Your task to perform on an android device: turn on bluetooth scan Image 0: 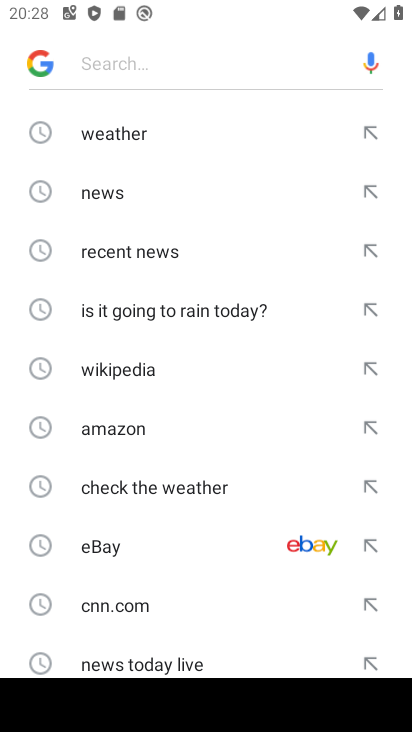
Step 0: press home button
Your task to perform on an android device: turn on bluetooth scan Image 1: 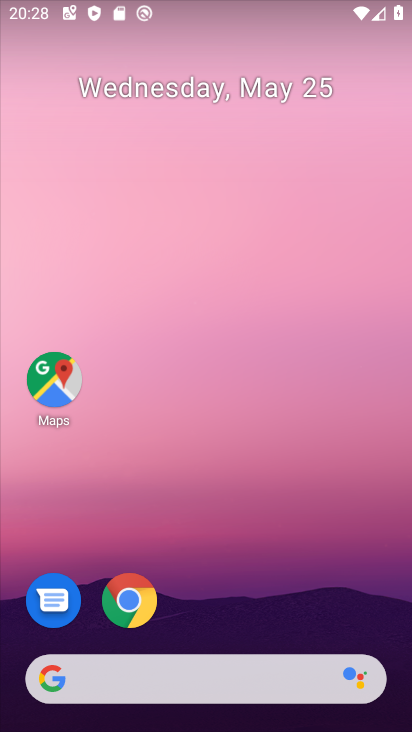
Step 1: drag from (379, 621) to (327, 163)
Your task to perform on an android device: turn on bluetooth scan Image 2: 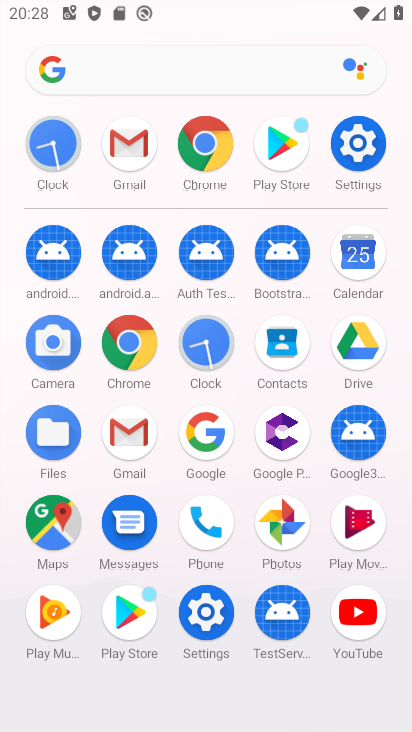
Step 2: click (373, 163)
Your task to perform on an android device: turn on bluetooth scan Image 3: 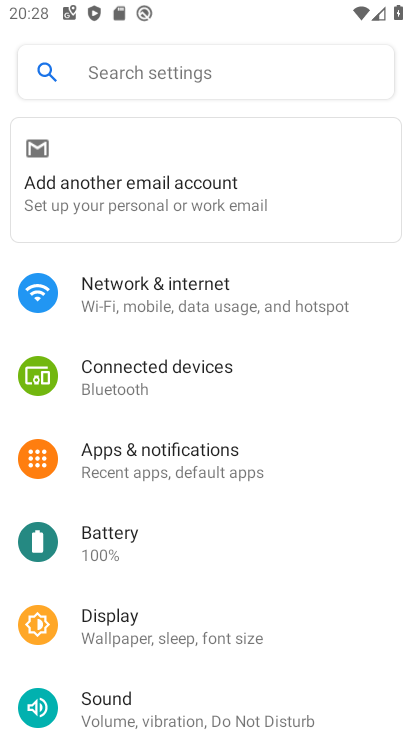
Step 3: drag from (267, 657) to (249, 210)
Your task to perform on an android device: turn on bluetooth scan Image 4: 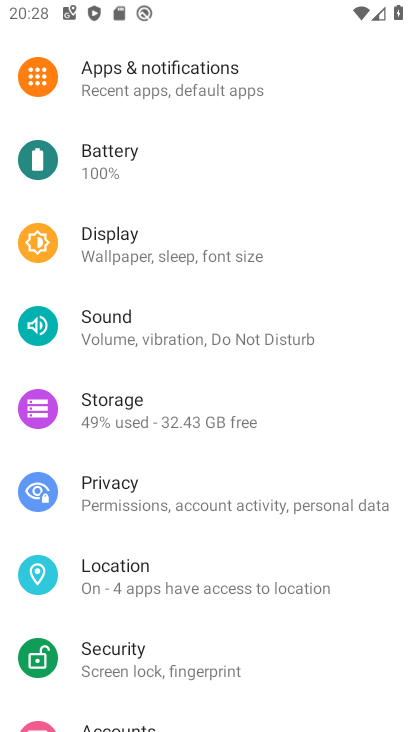
Step 4: click (227, 581)
Your task to perform on an android device: turn on bluetooth scan Image 5: 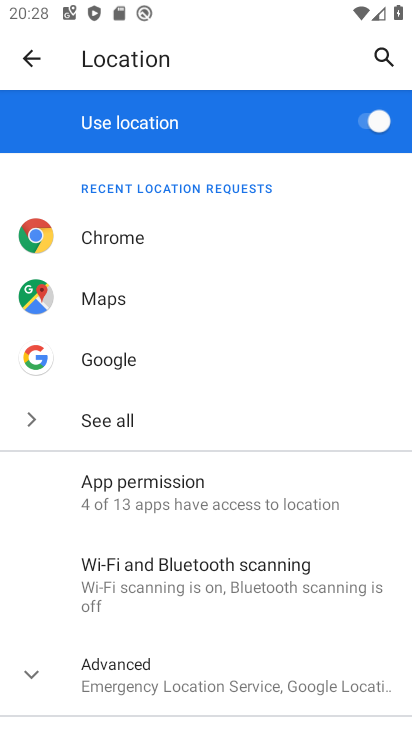
Step 5: click (204, 584)
Your task to perform on an android device: turn on bluetooth scan Image 6: 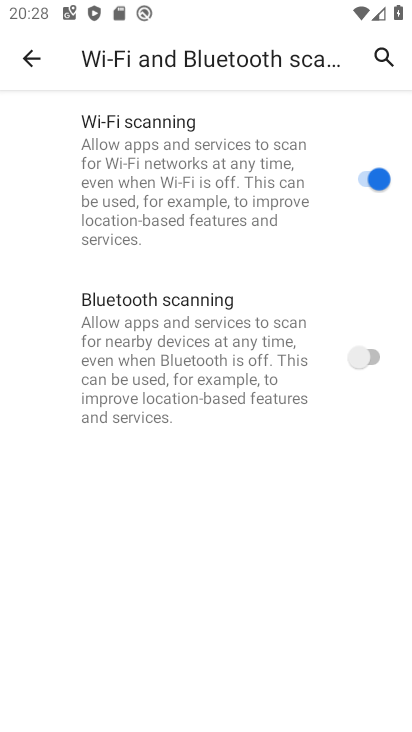
Step 6: click (369, 361)
Your task to perform on an android device: turn on bluetooth scan Image 7: 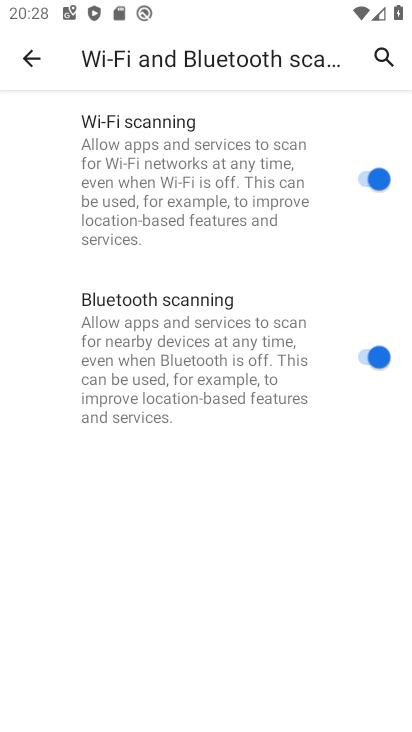
Step 7: task complete